Your task to perform on an android device: change notifications settings Image 0: 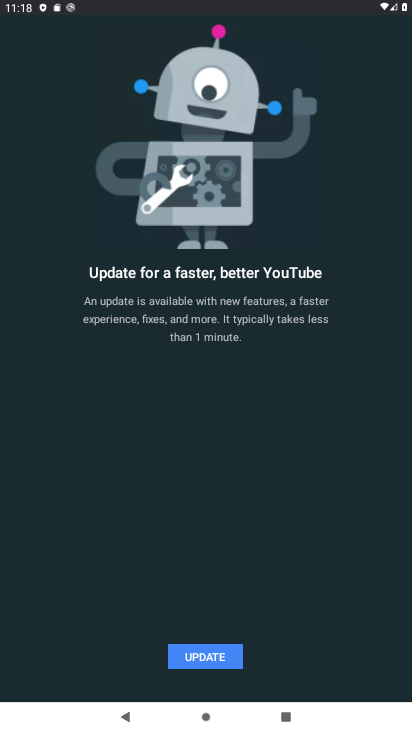
Step 0: press home button
Your task to perform on an android device: change notifications settings Image 1: 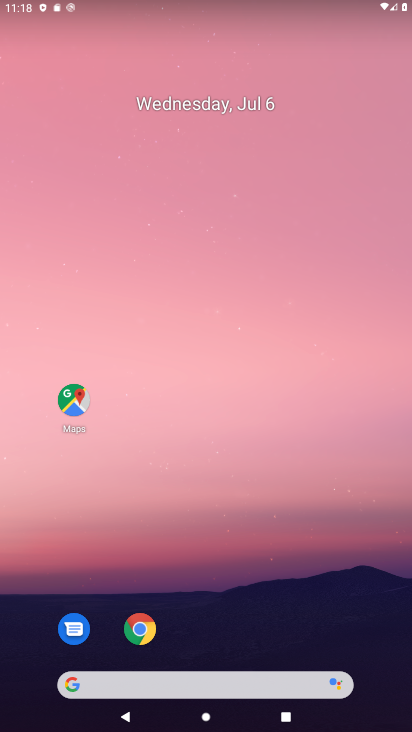
Step 1: drag from (316, 588) to (342, 47)
Your task to perform on an android device: change notifications settings Image 2: 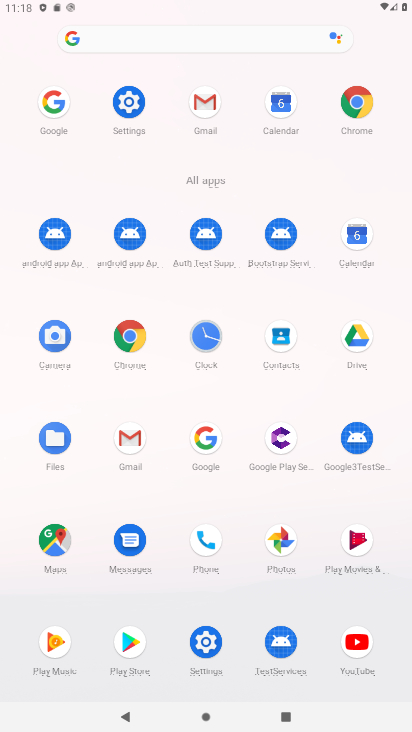
Step 2: click (130, 100)
Your task to perform on an android device: change notifications settings Image 3: 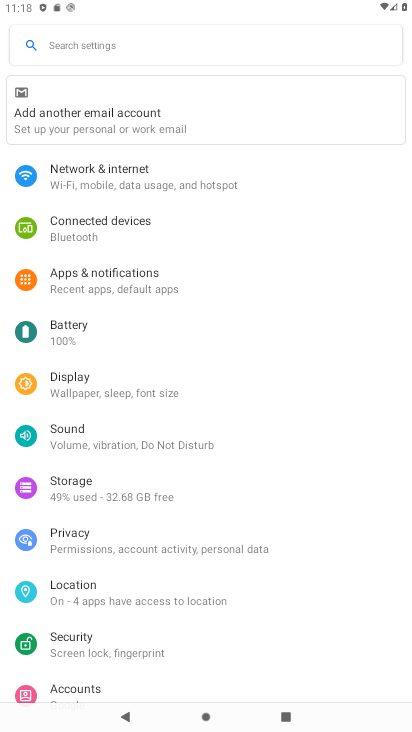
Step 3: drag from (337, 422) to (342, 299)
Your task to perform on an android device: change notifications settings Image 4: 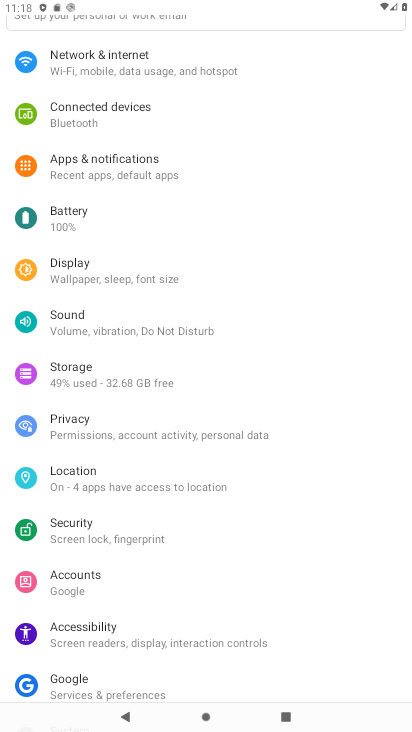
Step 4: drag from (332, 489) to (336, 319)
Your task to perform on an android device: change notifications settings Image 5: 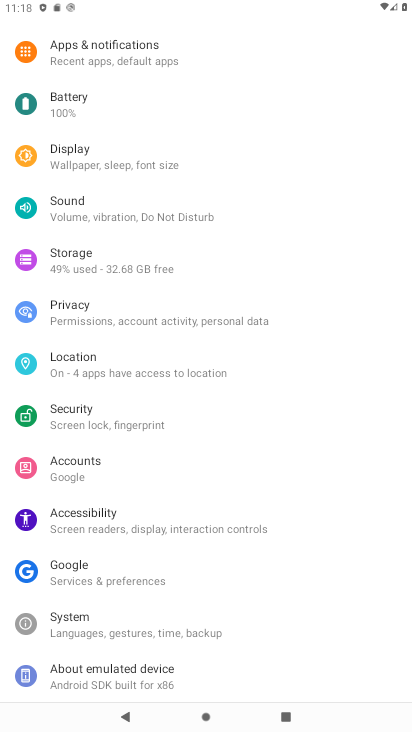
Step 5: drag from (339, 464) to (339, 272)
Your task to perform on an android device: change notifications settings Image 6: 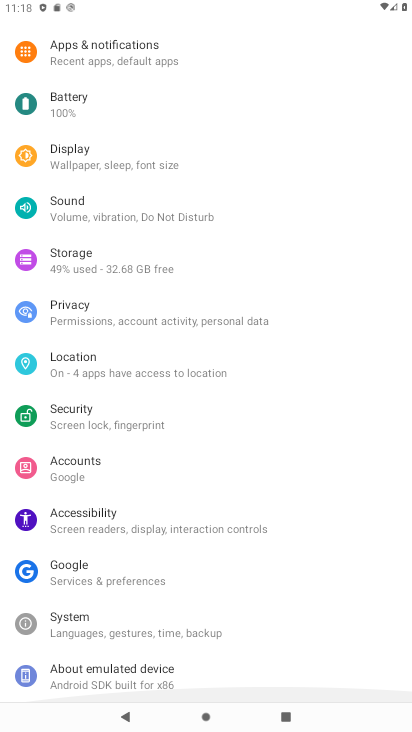
Step 6: drag from (338, 219) to (342, 435)
Your task to perform on an android device: change notifications settings Image 7: 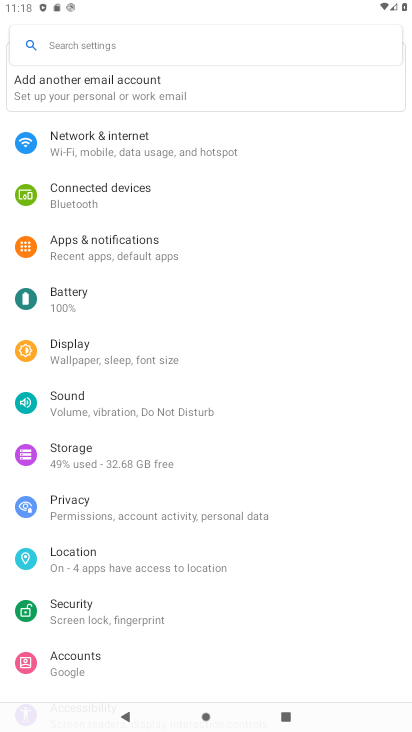
Step 7: drag from (325, 256) to (325, 383)
Your task to perform on an android device: change notifications settings Image 8: 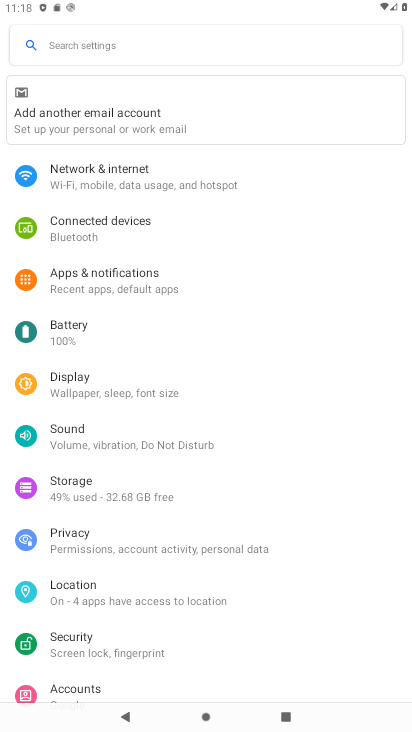
Step 8: click (189, 283)
Your task to perform on an android device: change notifications settings Image 9: 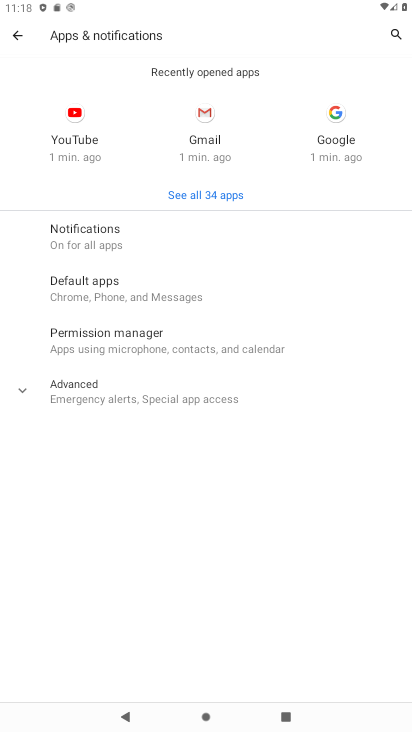
Step 9: click (131, 240)
Your task to perform on an android device: change notifications settings Image 10: 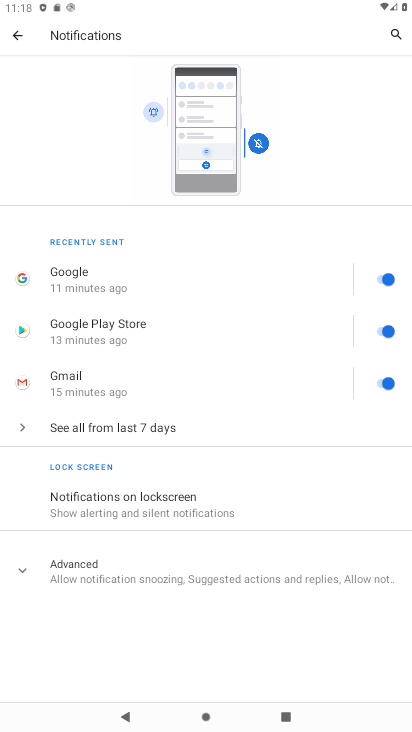
Step 10: click (384, 384)
Your task to perform on an android device: change notifications settings Image 11: 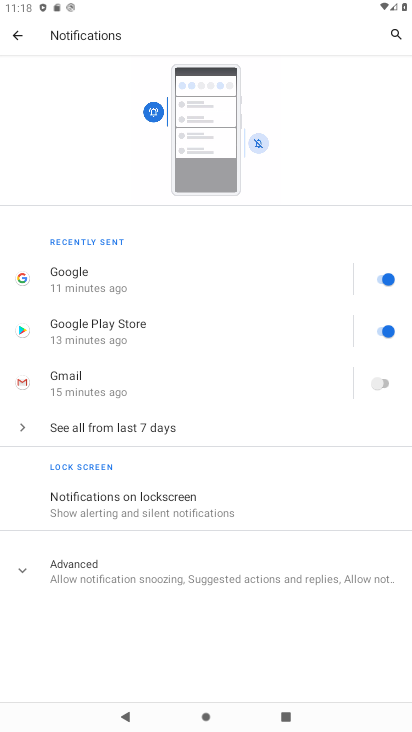
Step 11: click (389, 325)
Your task to perform on an android device: change notifications settings Image 12: 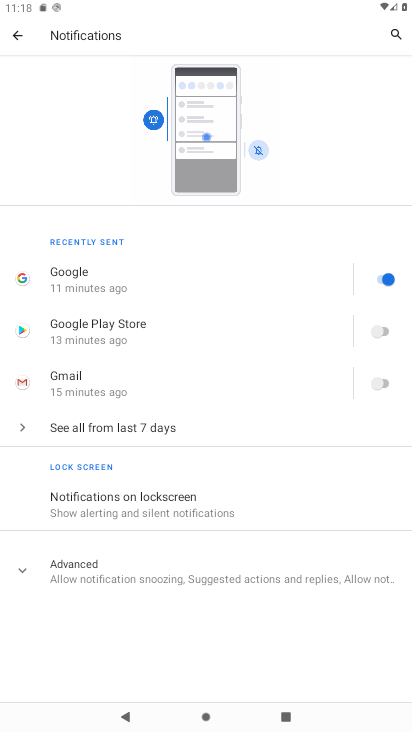
Step 12: click (383, 275)
Your task to perform on an android device: change notifications settings Image 13: 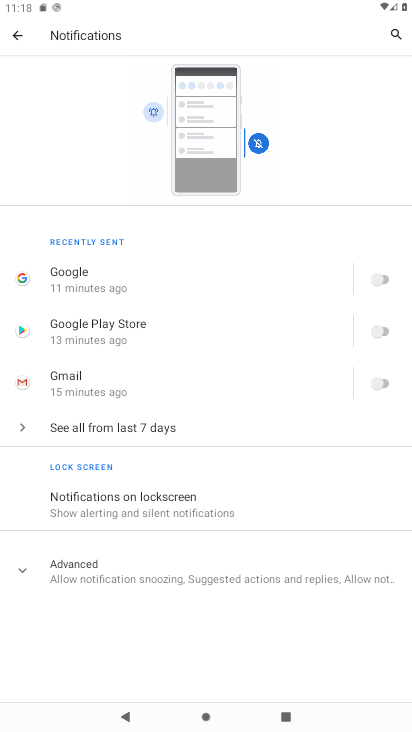
Step 13: task complete